Your task to perform on an android device: turn on the 24-hour format for clock Image 0: 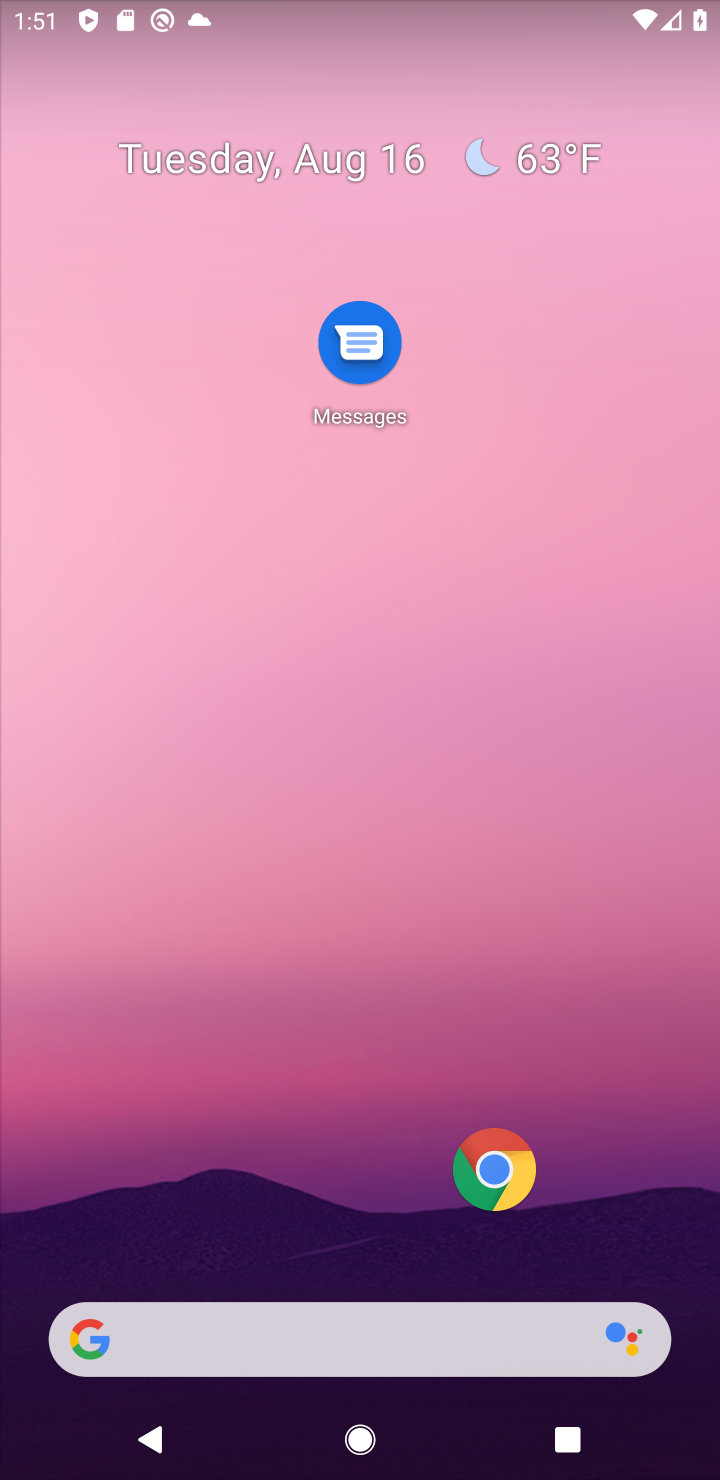
Step 0: drag from (59, 1436) to (355, 428)
Your task to perform on an android device: turn on the 24-hour format for clock Image 1: 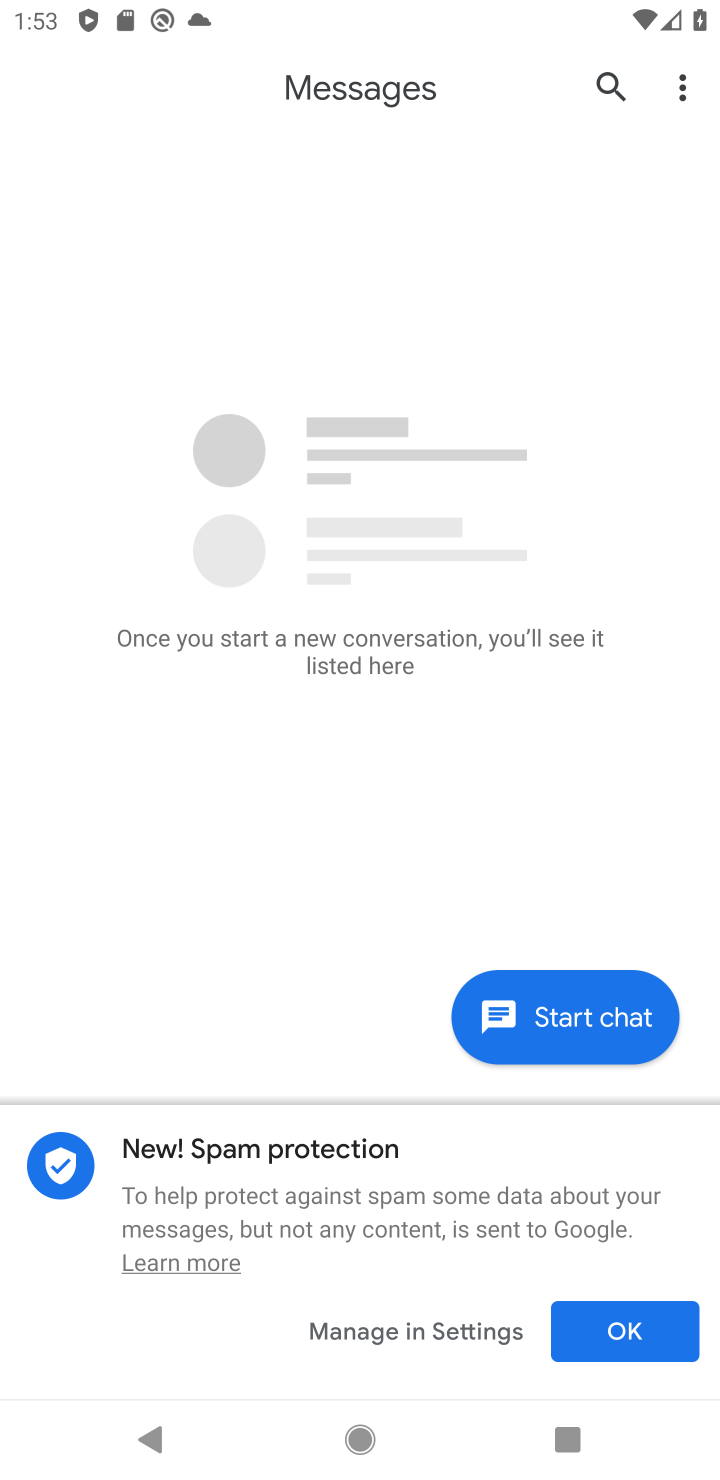
Step 1: task complete